Your task to perform on an android device: toggle data saver in the chrome app Image 0: 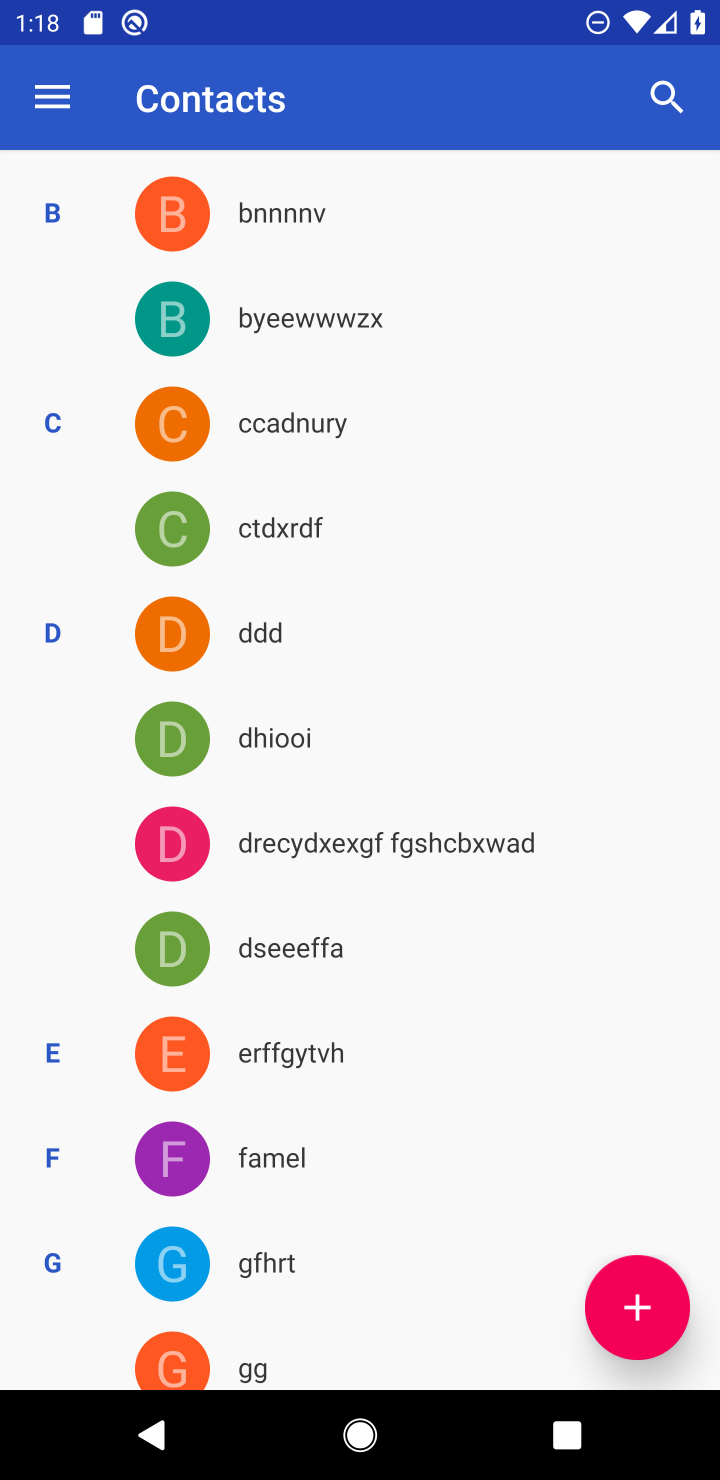
Step 0: press back button
Your task to perform on an android device: toggle data saver in the chrome app Image 1: 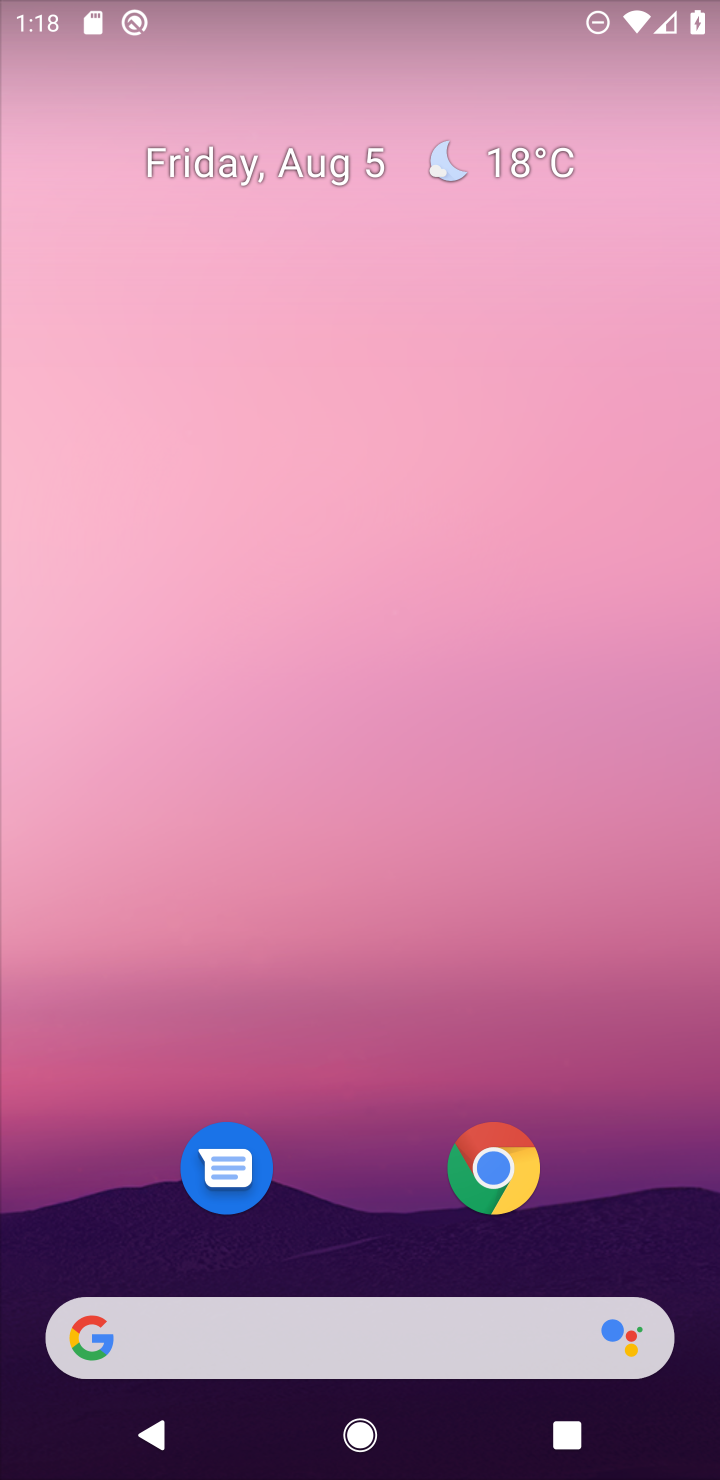
Step 1: click (520, 1159)
Your task to perform on an android device: toggle data saver in the chrome app Image 2: 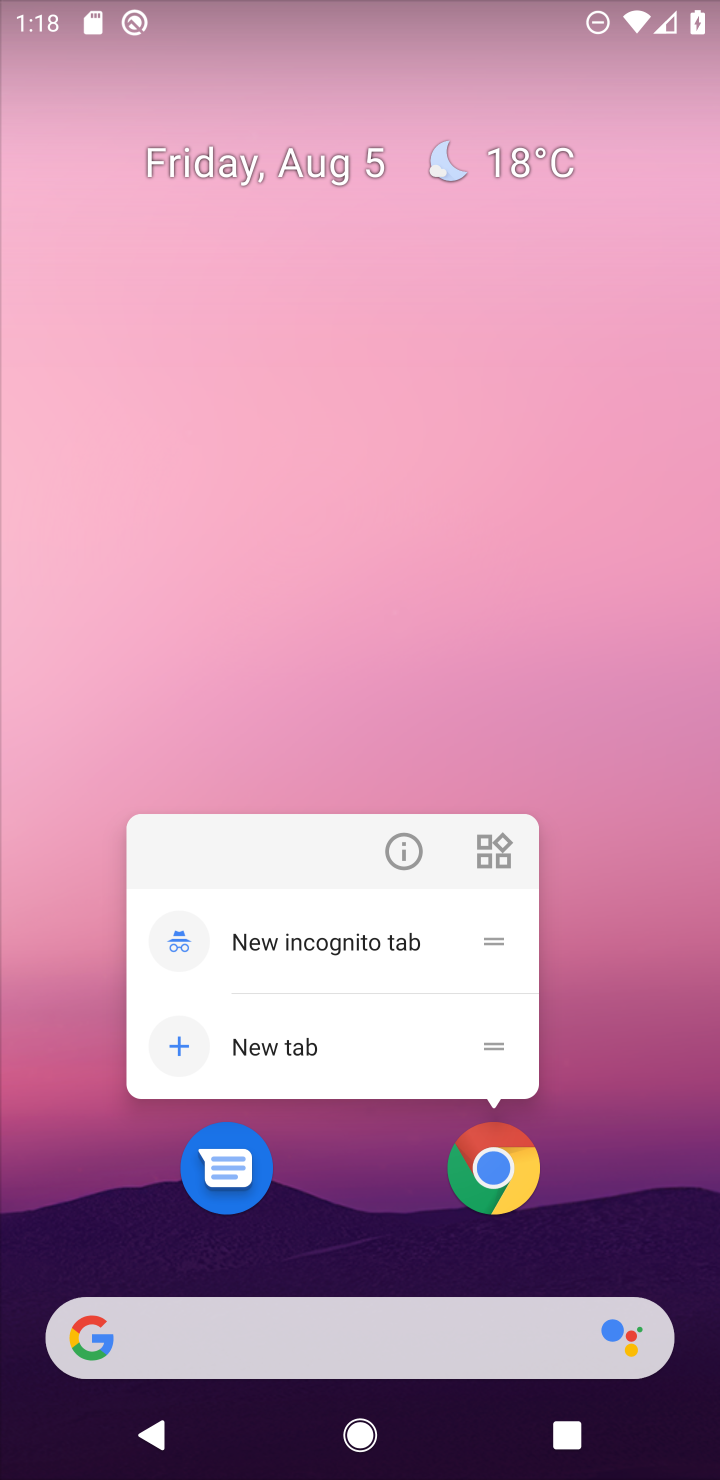
Step 2: click (488, 1186)
Your task to perform on an android device: toggle data saver in the chrome app Image 3: 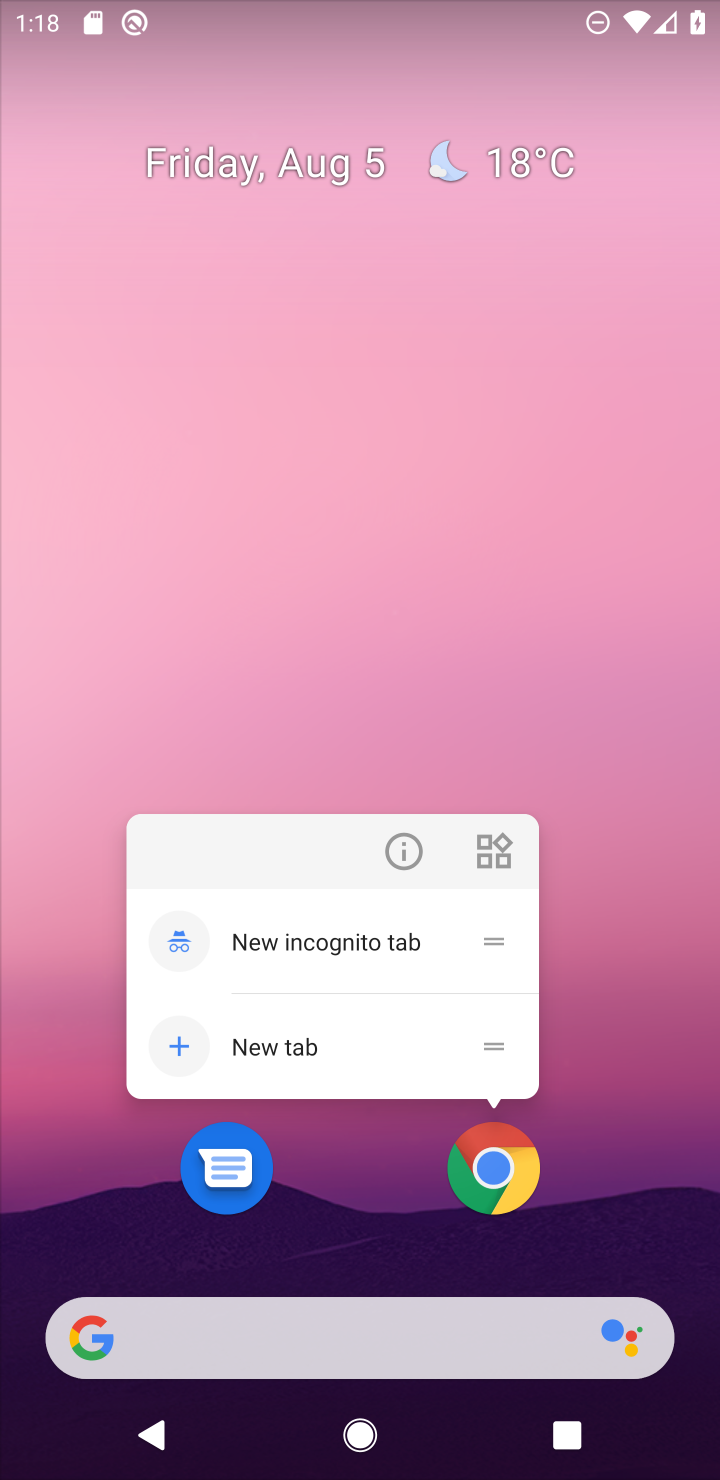
Step 3: click (493, 1174)
Your task to perform on an android device: toggle data saver in the chrome app Image 4: 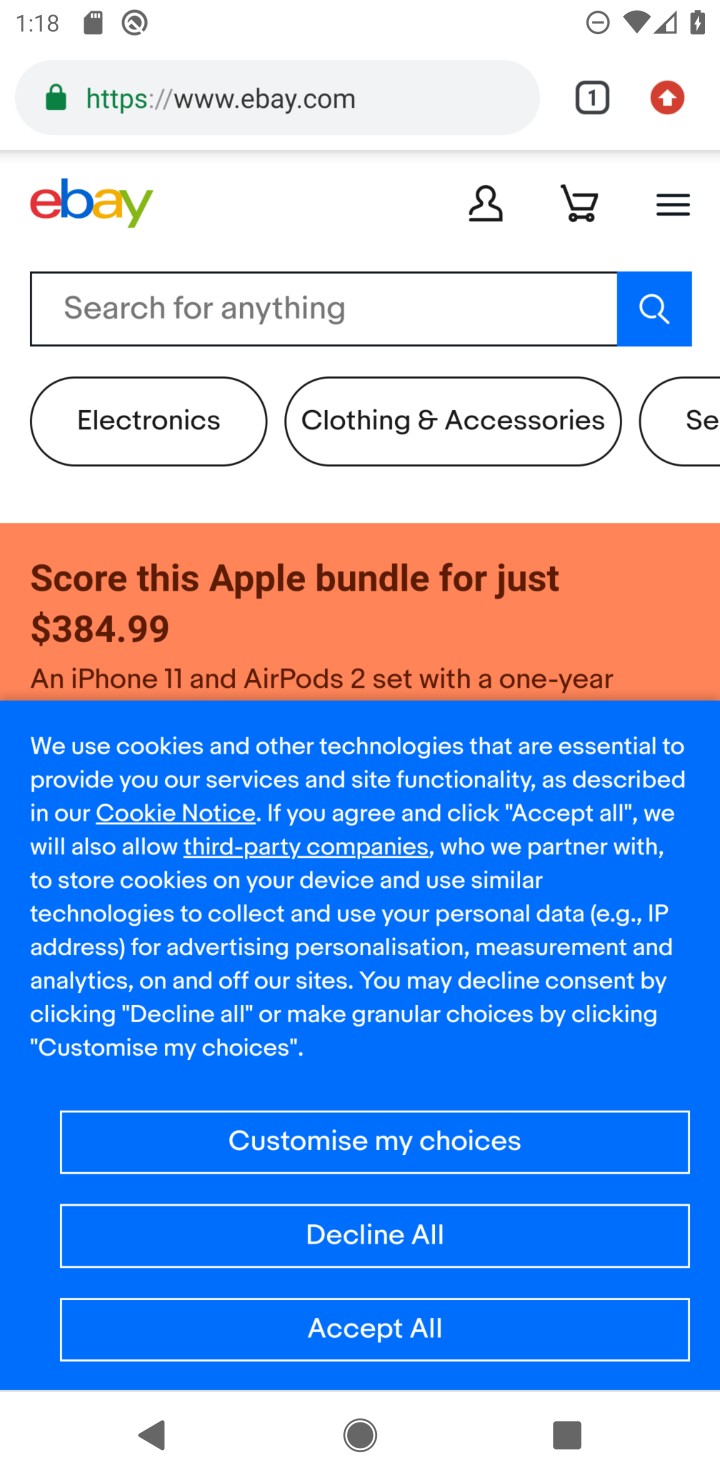
Step 4: click (508, 1168)
Your task to perform on an android device: toggle data saver in the chrome app Image 5: 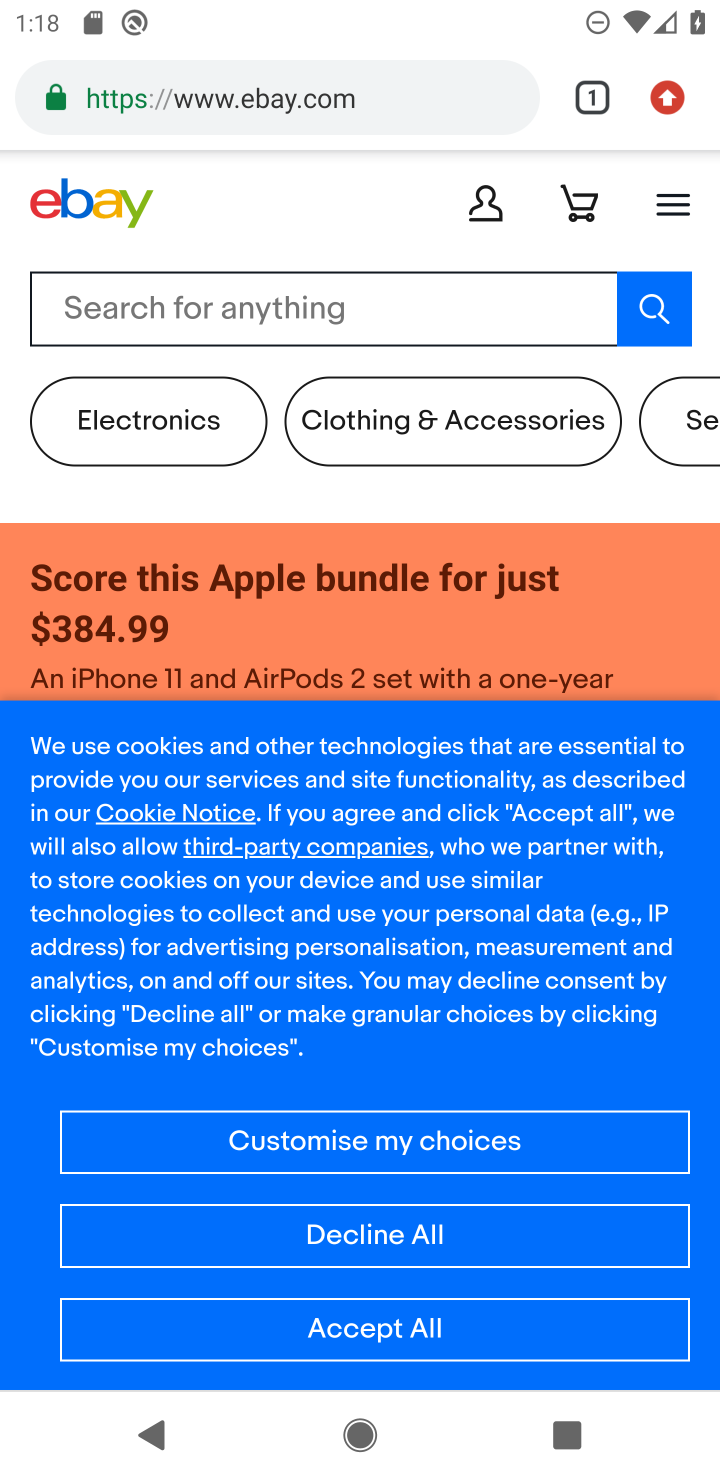
Step 5: drag from (675, 87) to (342, 1203)
Your task to perform on an android device: toggle data saver in the chrome app Image 6: 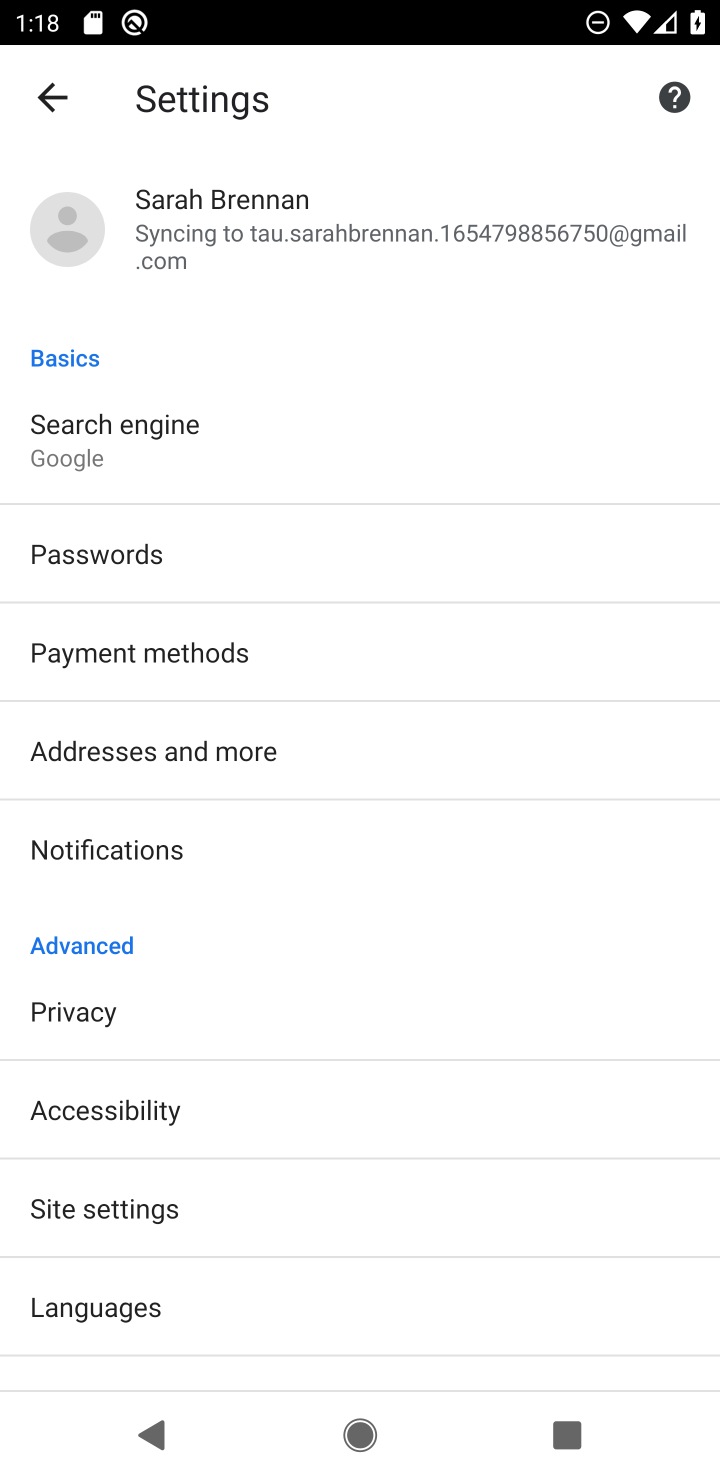
Step 6: drag from (291, 1309) to (408, 545)
Your task to perform on an android device: toggle data saver in the chrome app Image 7: 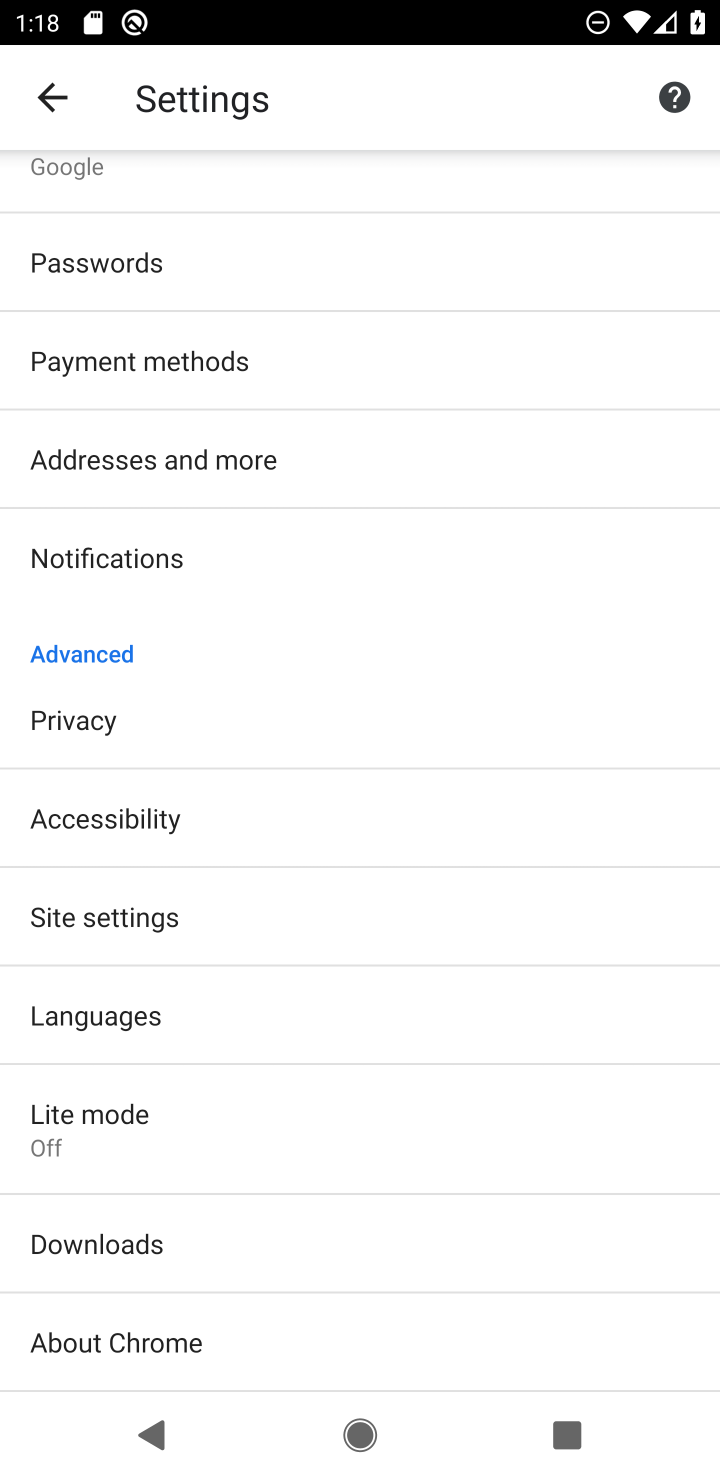
Step 7: click (137, 1137)
Your task to perform on an android device: toggle data saver in the chrome app Image 8: 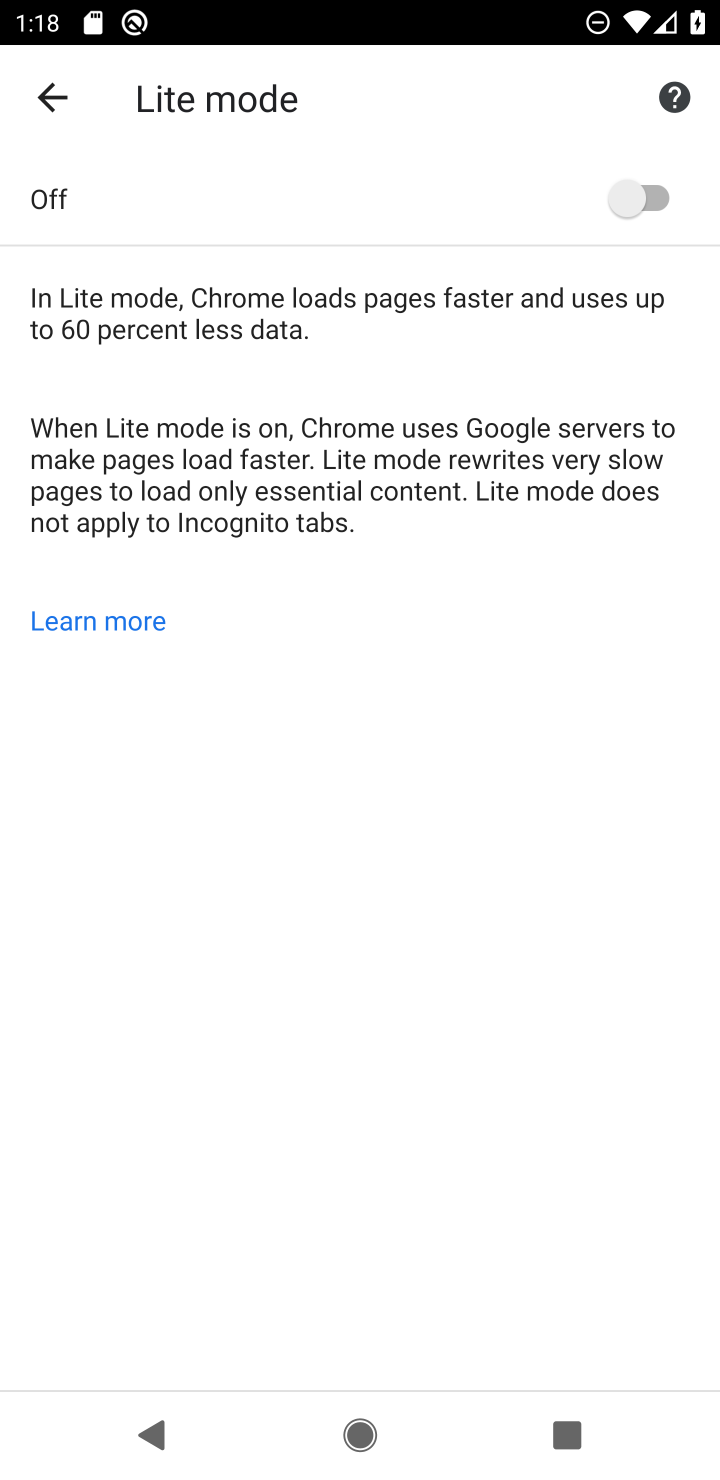
Step 8: click (642, 206)
Your task to perform on an android device: toggle data saver in the chrome app Image 9: 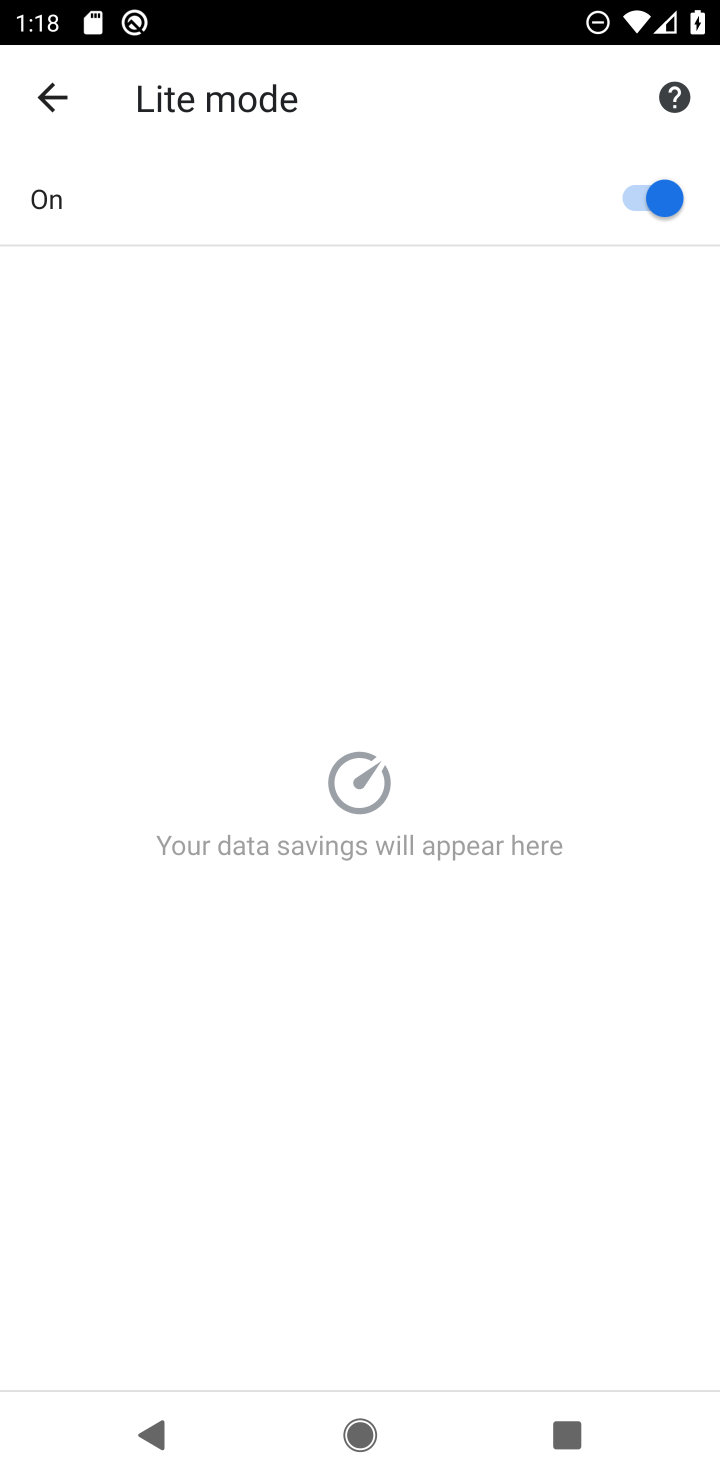
Step 9: task complete